Your task to perform on an android device: set an alarm Image 0: 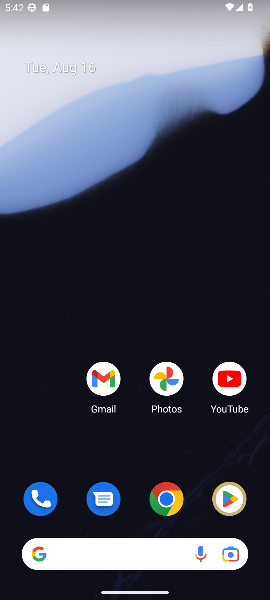
Step 0: drag from (169, 560) to (89, 6)
Your task to perform on an android device: set an alarm Image 1: 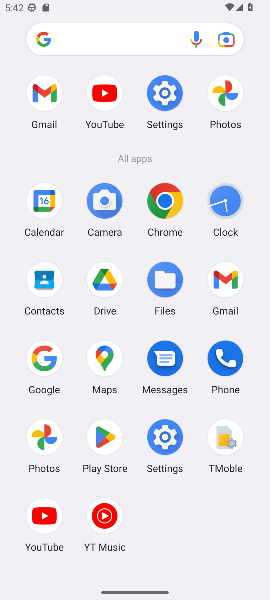
Step 1: click (232, 203)
Your task to perform on an android device: set an alarm Image 2: 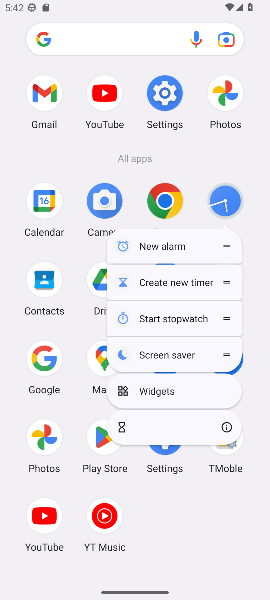
Step 2: click (231, 204)
Your task to perform on an android device: set an alarm Image 3: 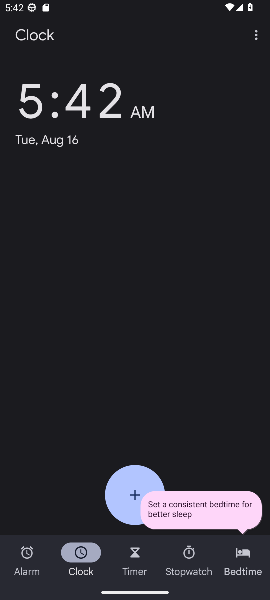
Step 3: click (28, 557)
Your task to perform on an android device: set an alarm Image 4: 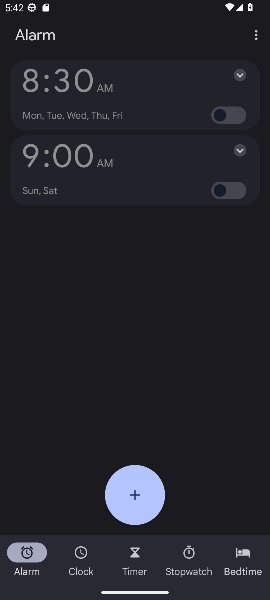
Step 4: click (236, 117)
Your task to perform on an android device: set an alarm Image 5: 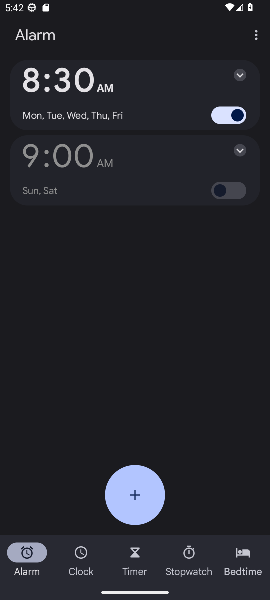
Step 5: task complete